Your task to perform on an android device: turn on sleep mode Image 0: 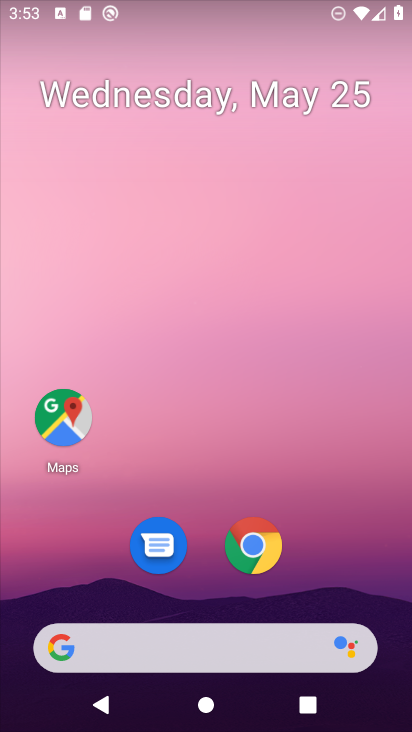
Step 0: drag from (337, 568) to (344, 253)
Your task to perform on an android device: turn on sleep mode Image 1: 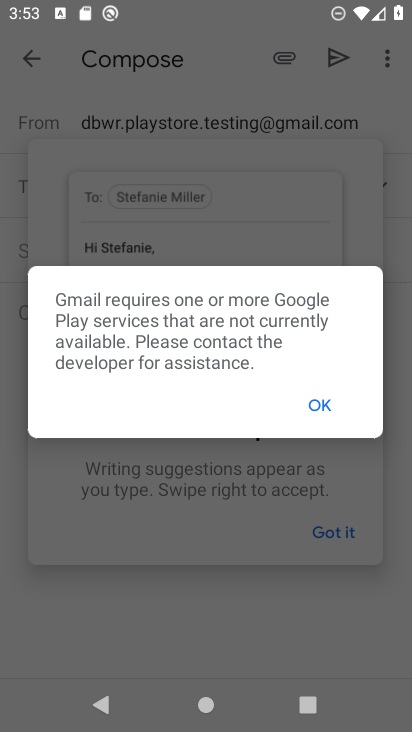
Step 1: click (336, 395)
Your task to perform on an android device: turn on sleep mode Image 2: 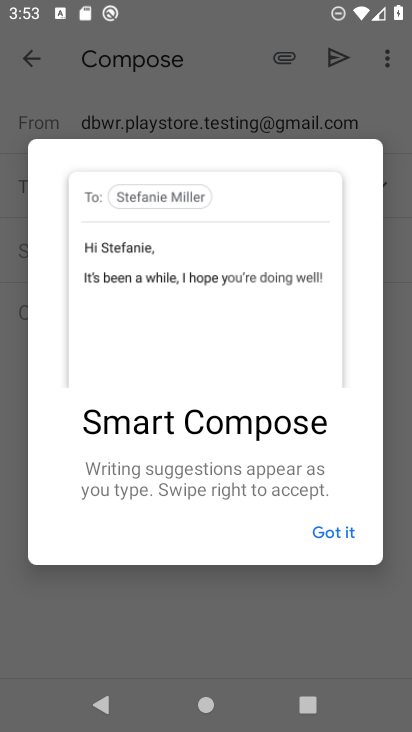
Step 2: press home button
Your task to perform on an android device: turn on sleep mode Image 3: 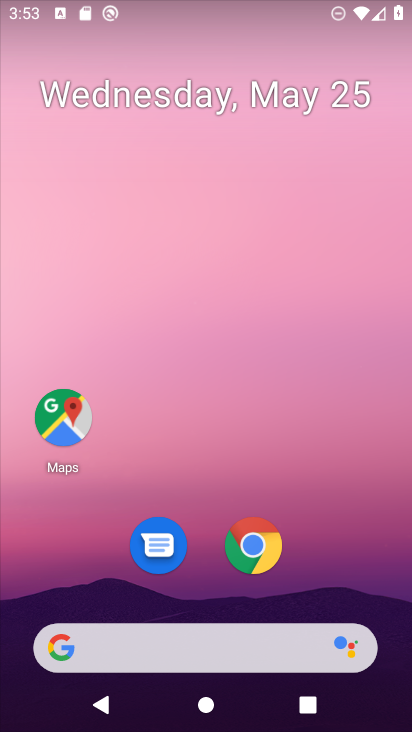
Step 3: drag from (349, 553) to (337, 143)
Your task to perform on an android device: turn on sleep mode Image 4: 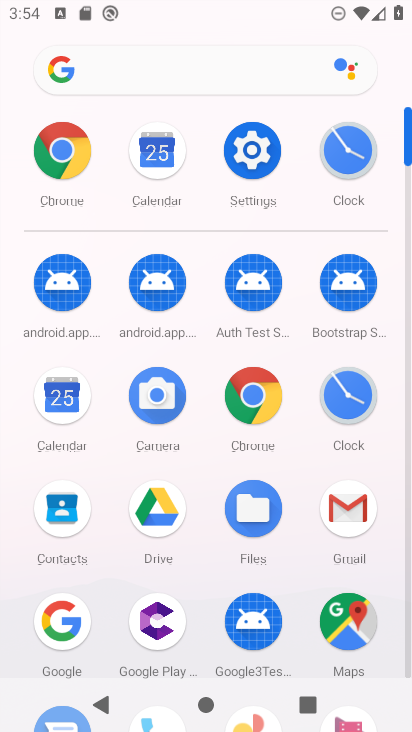
Step 4: click (263, 188)
Your task to perform on an android device: turn on sleep mode Image 5: 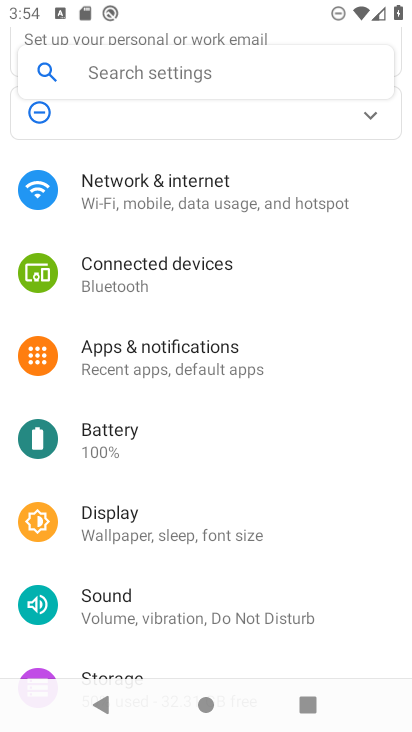
Step 5: click (225, 548)
Your task to perform on an android device: turn on sleep mode Image 6: 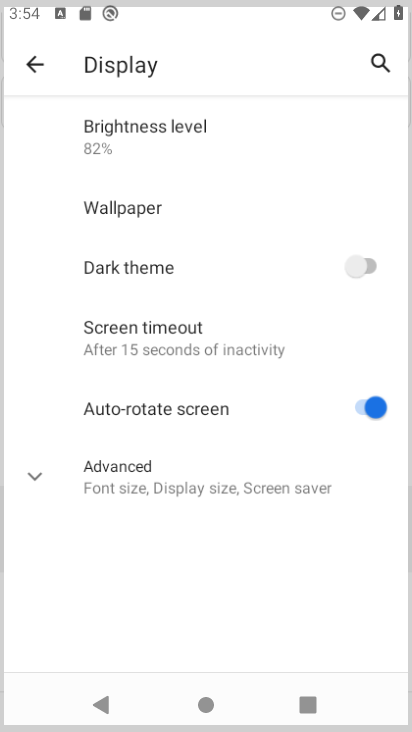
Step 6: click (225, 548)
Your task to perform on an android device: turn on sleep mode Image 7: 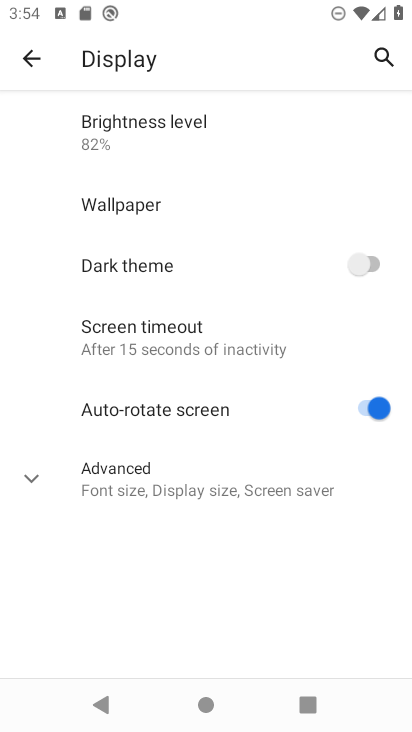
Step 7: click (178, 320)
Your task to perform on an android device: turn on sleep mode Image 8: 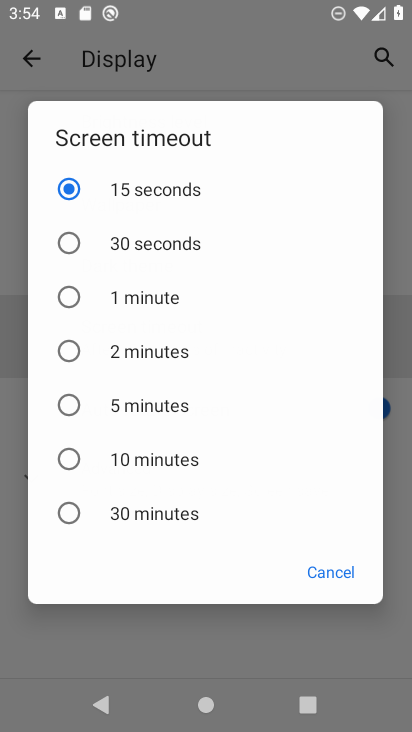
Step 8: click (178, 320)
Your task to perform on an android device: turn on sleep mode Image 9: 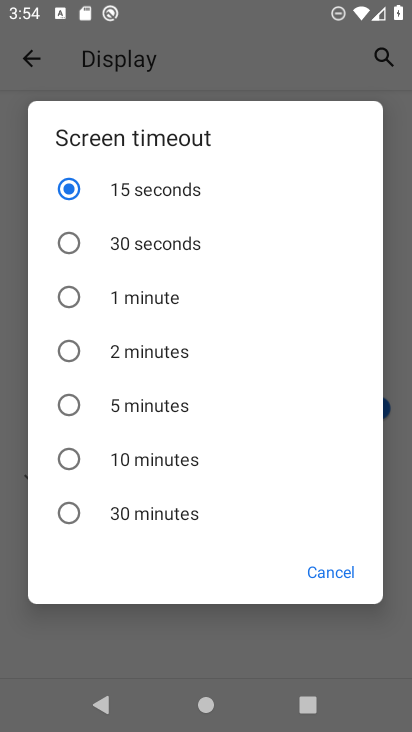
Step 9: click (178, 320)
Your task to perform on an android device: turn on sleep mode Image 10: 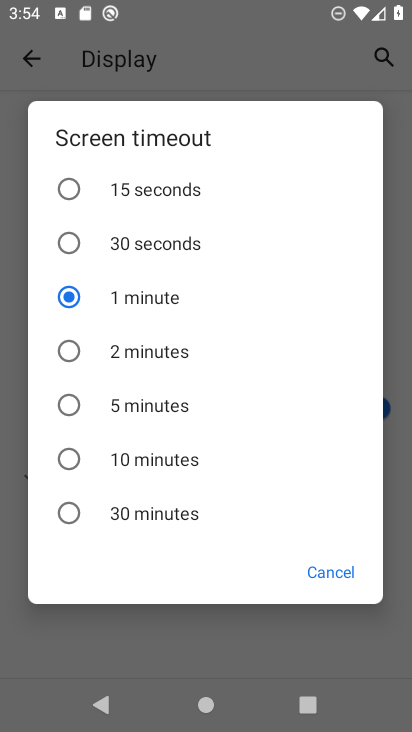
Step 10: task complete